Your task to perform on an android device: Go to battery settings Image 0: 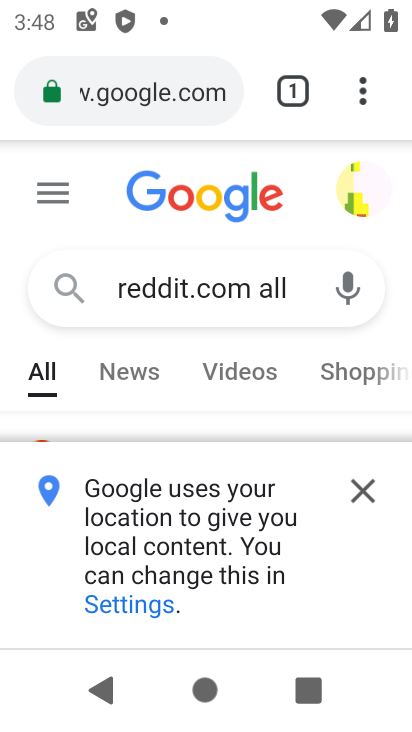
Step 0: task complete